Your task to perform on an android device: Open Android settings Image 0: 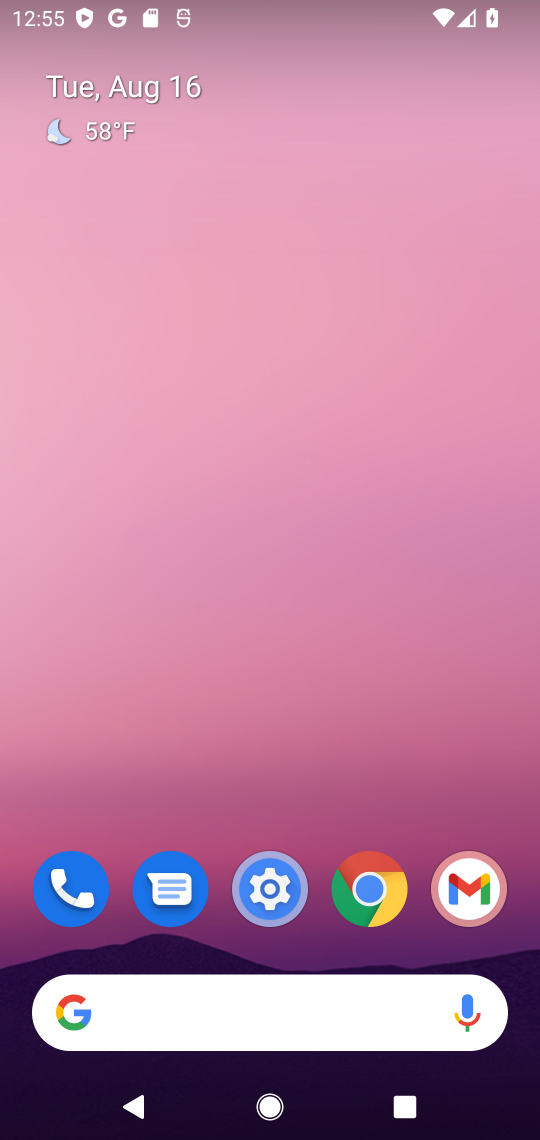
Step 0: drag from (272, 1080) to (197, 96)
Your task to perform on an android device: Open Android settings Image 1: 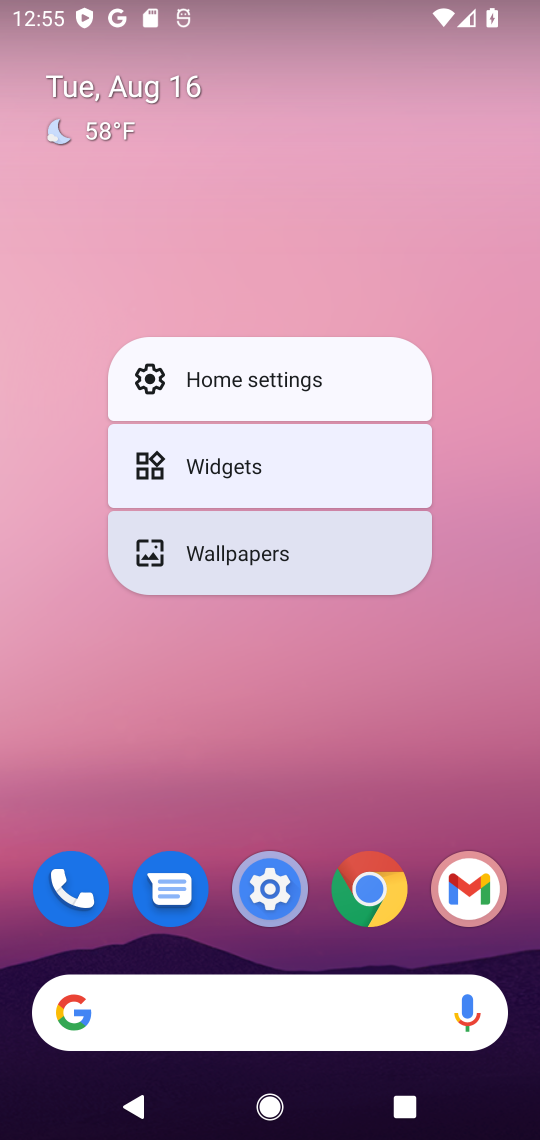
Step 1: click (466, 737)
Your task to perform on an android device: Open Android settings Image 2: 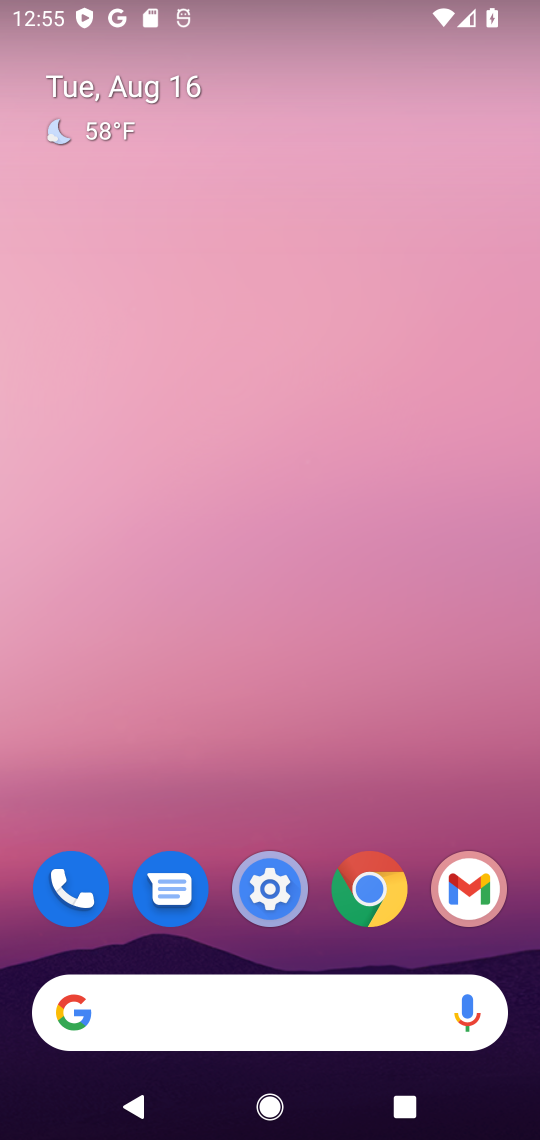
Step 2: drag from (284, 599) to (256, 65)
Your task to perform on an android device: Open Android settings Image 3: 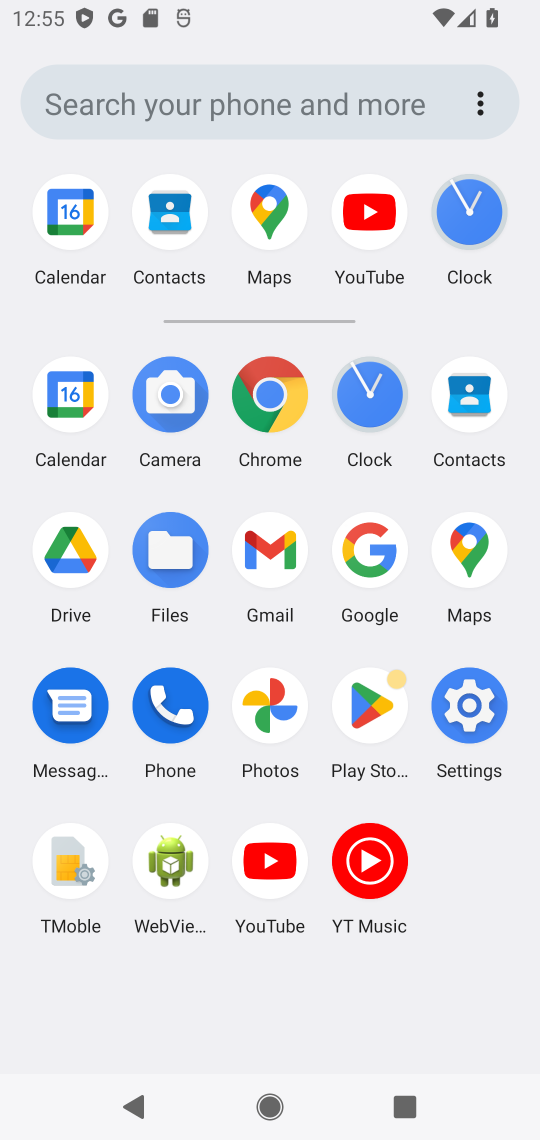
Step 3: click (472, 698)
Your task to perform on an android device: Open Android settings Image 4: 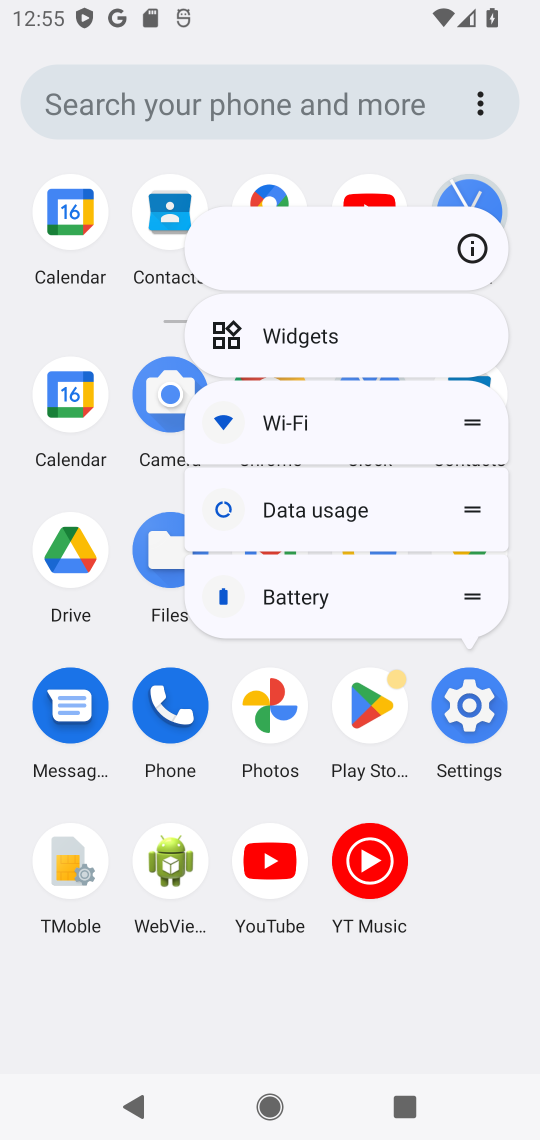
Step 4: click (472, 697)
Your task to perform on an android device: Open Android settings Image 5: 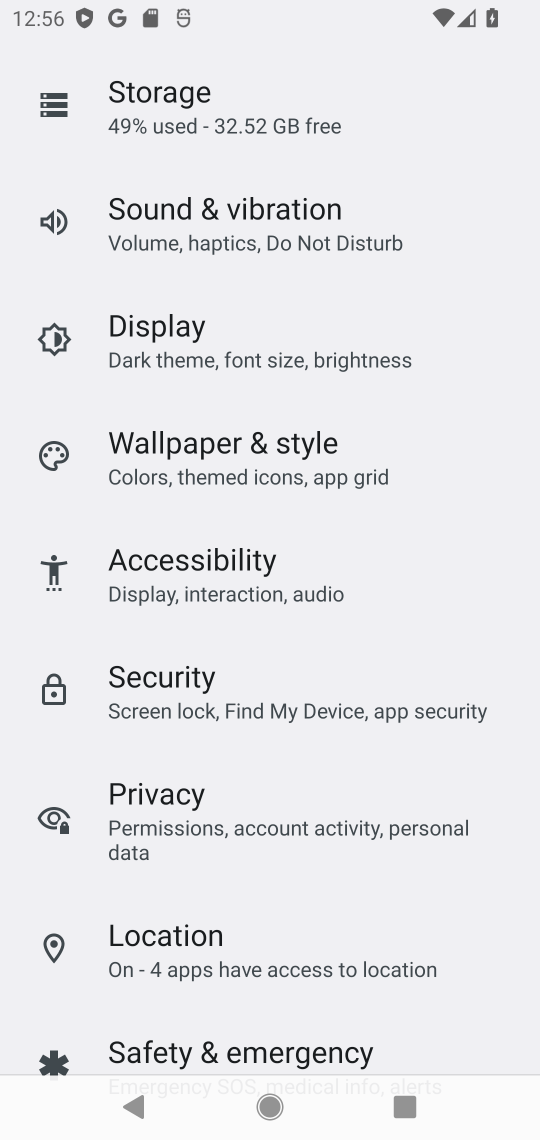
Step 5: task complete